Your task to perform on an android device: turn on wifi Image 0: 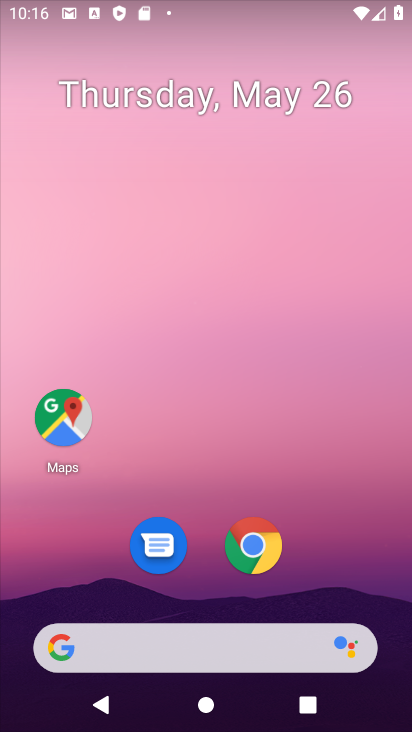
Step 0: press home button
Your task to perform on an android device: turn on wifi Image 1: 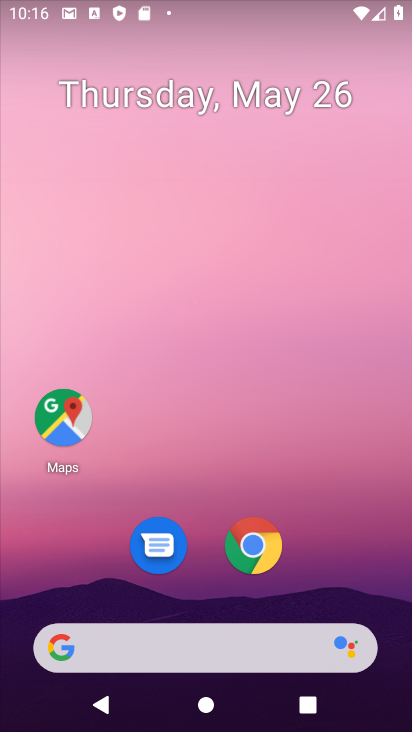
Step 1: task complete